Your task to perform on an android device: turn smart compose on in the gmail app Image 0: 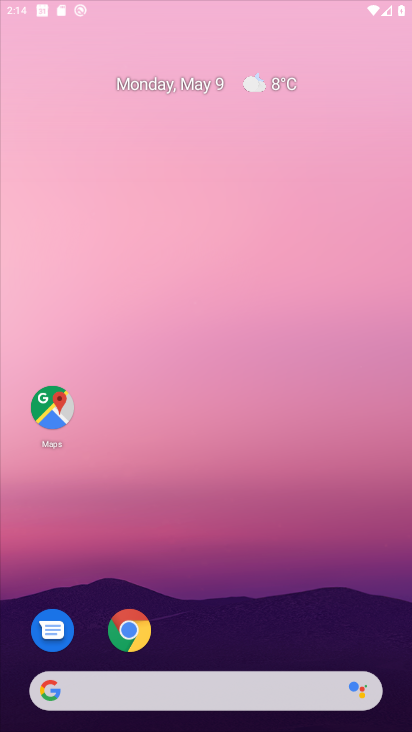
Step 0: click (240, 37)
Your task to perform on an android device: turn smart compose on in the gmail app Image 1: 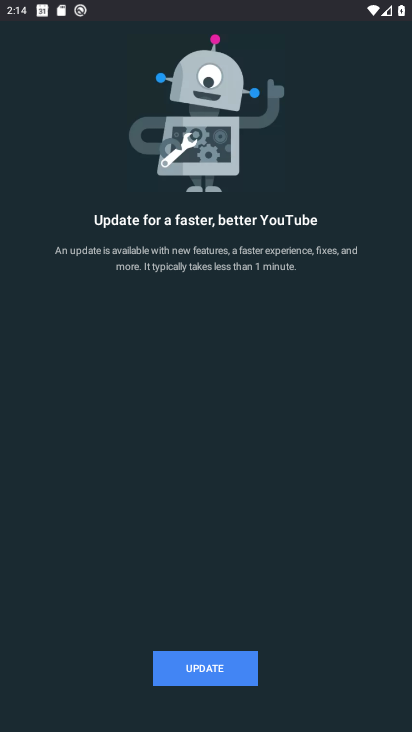
Step 1: press home button
Your task to perform on an android device: turn smart compose on in the gmail app Image 2: 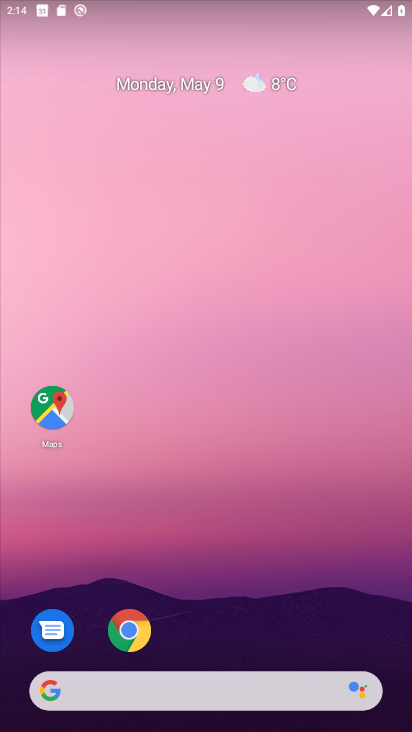
Step 2: drag from (159, 532) to (376, 2)
Your task to perform on an android device: turn smart compose on in the gmail app Image 3: 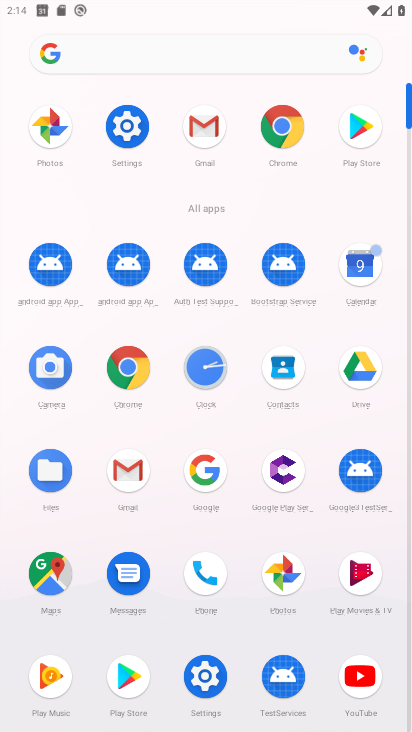
Step 3: click (125, 468)
Your task to perform on an android device: turn smart compose on in the gmail app Image 4: 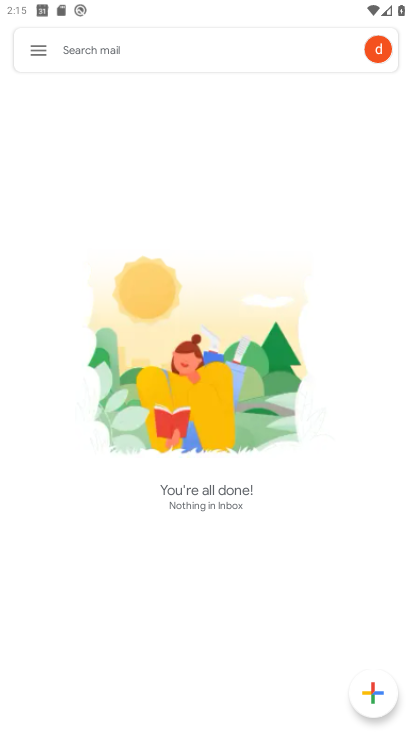
Step 4: click (39, 51)
Your task to perform on an android device: turn smart compose on in the gmail app Image 5: 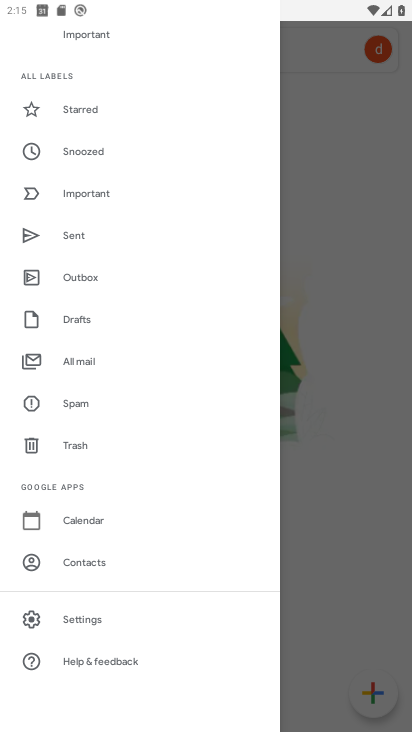
Step 5: click (112, 625)
Your task to perform on an android device: turn smart compose on in the gmail app Image 6: 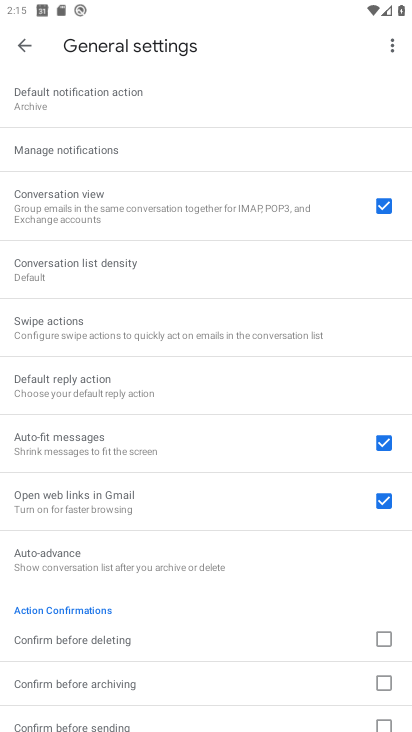
Step 6: drag from (271, 535) to (296, 372)
Your task to perform on an android device: turn smart compose on in the gmail app Image 7: 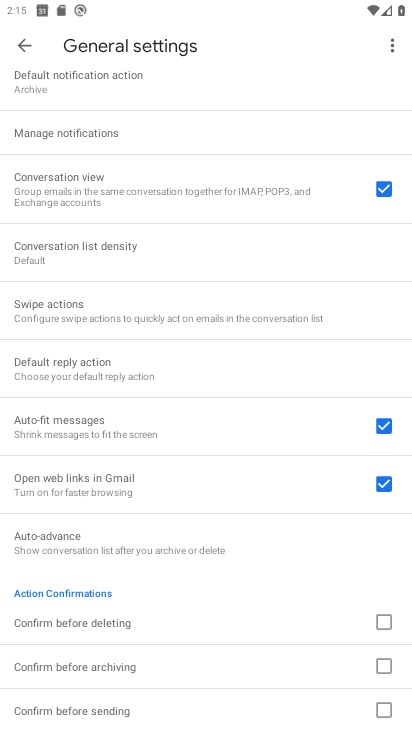
Step 7: drag from (296, 371) to (326, 529)
Your task to perform on an android device: turn smart compose on in the gmail app Image 8: 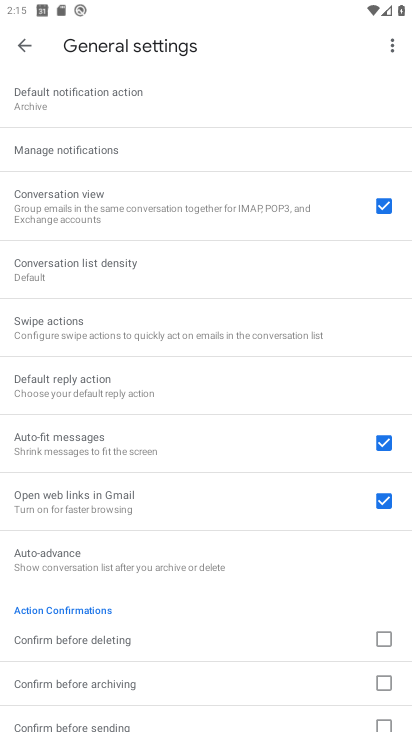
Step 8: drag from (267, 275) to (267, 641)
Your task to perform on an android device: turn smart compose on in the gmail app Image 9: 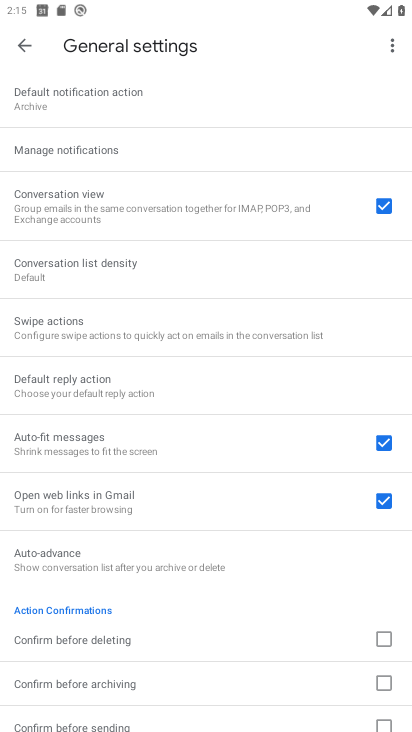
Step 9: click (23, 43)
Your task to perform on an android device: turn smart compose on in the gmail app Image 10: 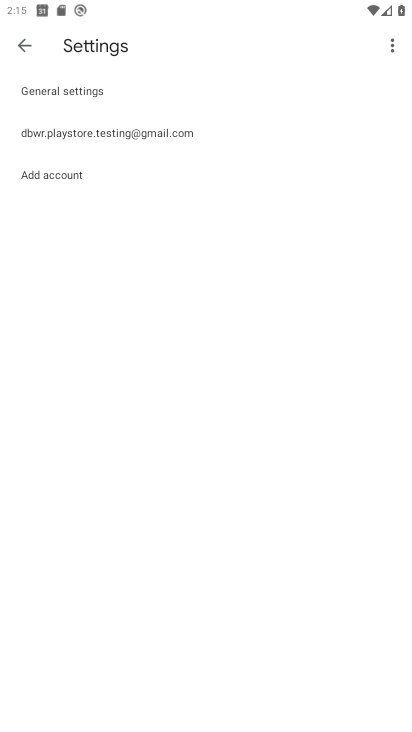
Step 10: click (137, 142)
Your task to perform on an android device: turn smart compose on in the gmail app Image 11: 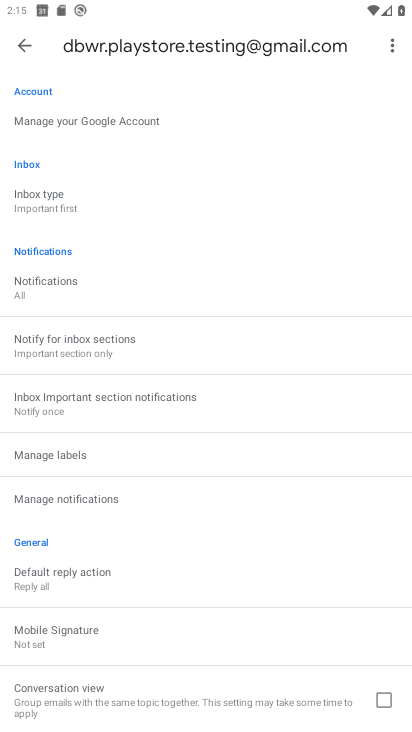
Step 11: task complete